Your task to perform on an android device: see creations saved in the google photos Image 0: 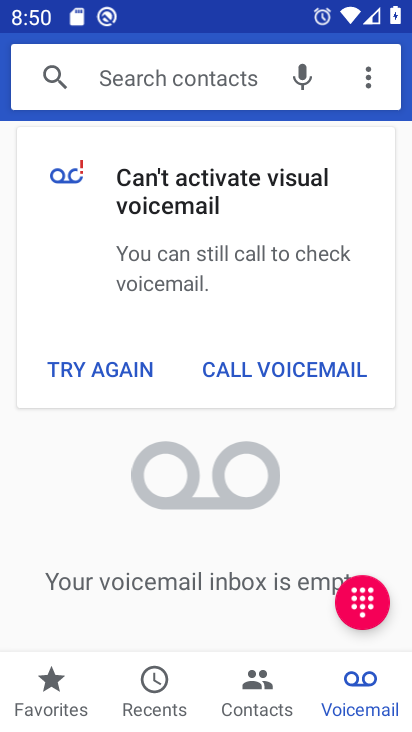
Step 0: press home button
Your task to perform on an android device: see creations saved in the google photos Image 1: 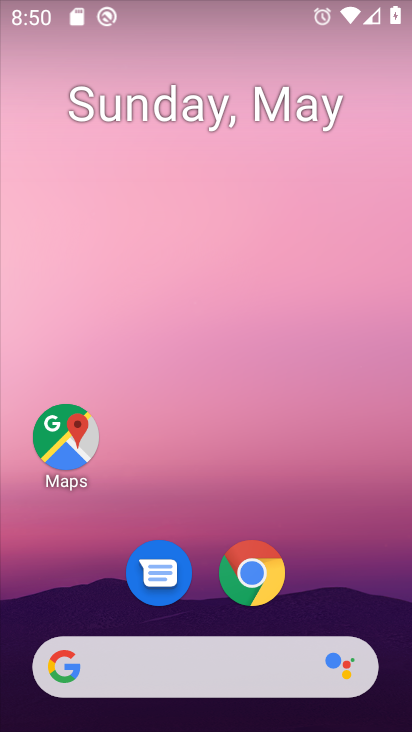
Step 1: drag from (265, 472) to (215, 1)
Your task to perform on an android device: see creations saved in the google photos Image 2: 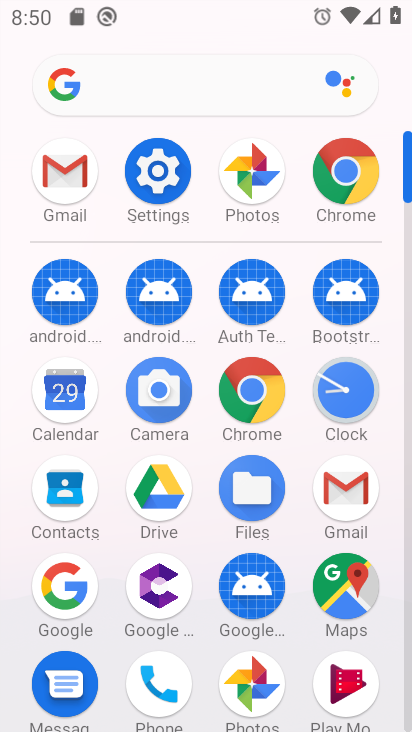
Step 2: click (252, 165)
Your task to perform on an android device: see creations saved in the google photos Image 3: 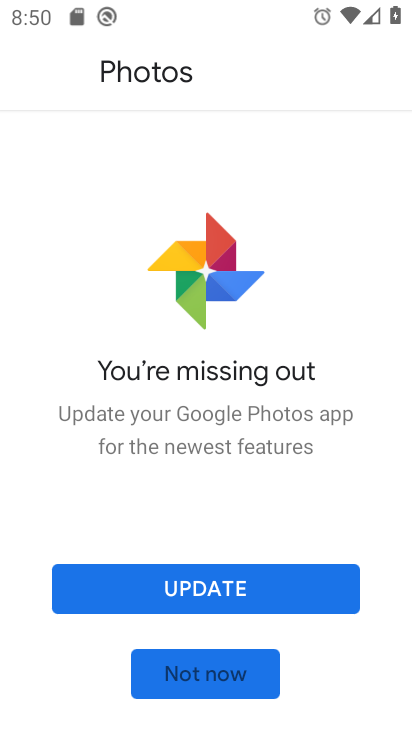
Step 3: click (239, 676)
Your task to perform on an android device: see creations saved in the google photos Image 4: 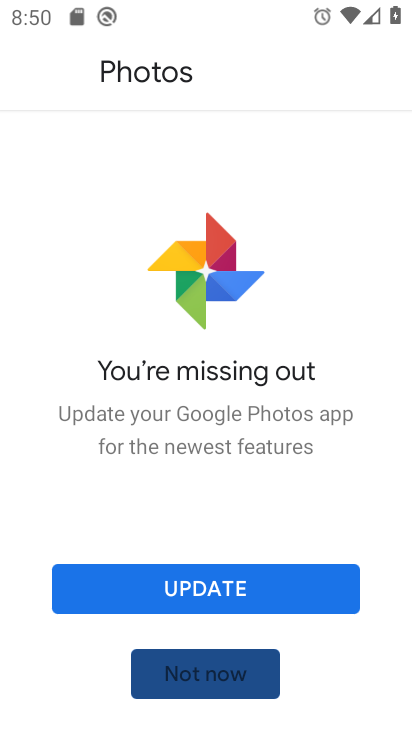
Step 4: click (243, 674)
Your task to perform on an android device: see creations saved in the google photos Image 5: 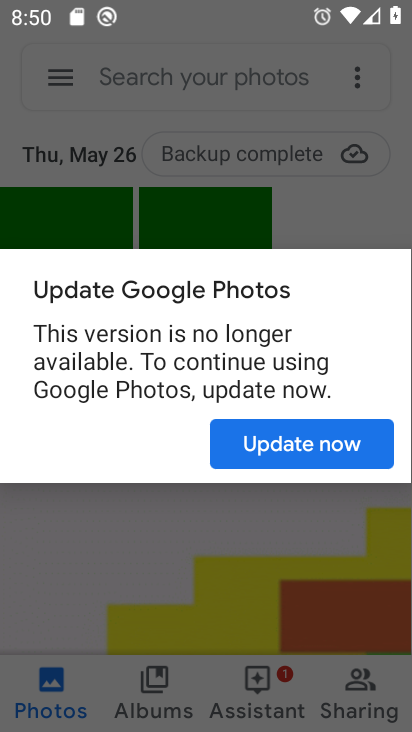
Step 5: click (352, 450)
Your task to perform on an android device: see creations saved in the google photos Image 6: 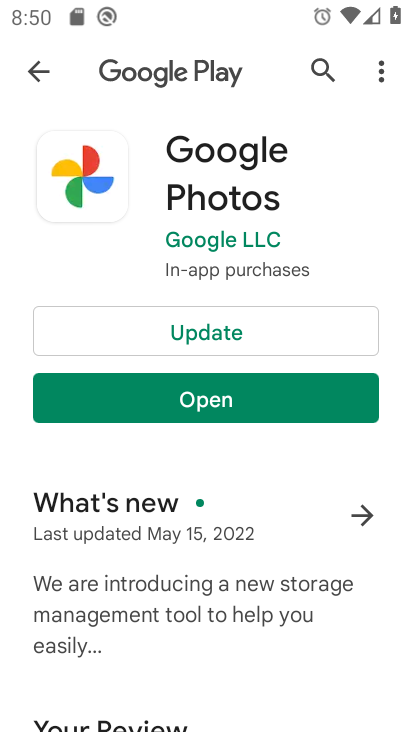
Step 6: click (326, 401)
Your task to perform on an android device: see creations saved in the google photos Image 7: 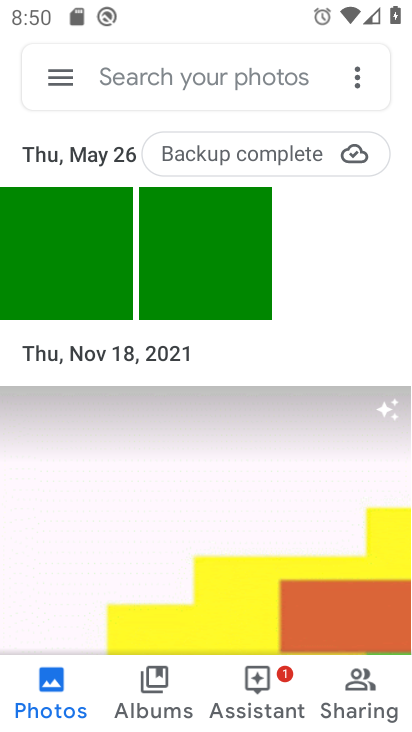
Step 7: click (262, 70)
Your task to perform on an android device: see creations saved in the google photos Image 8: 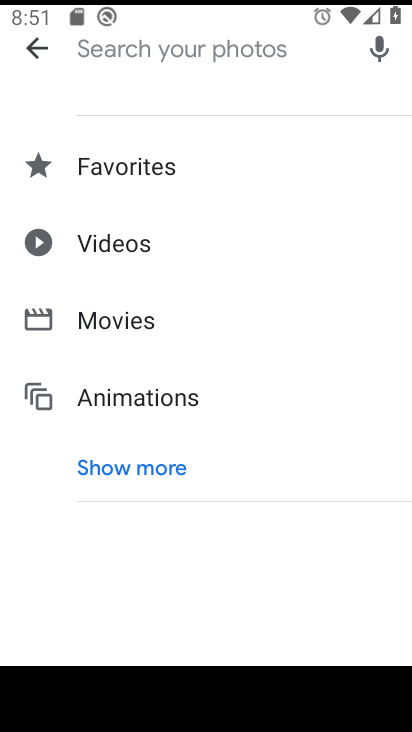
Step 8: click (124, 464)
Your task to perform on an android device: see creations saved in the google photos Image 9: 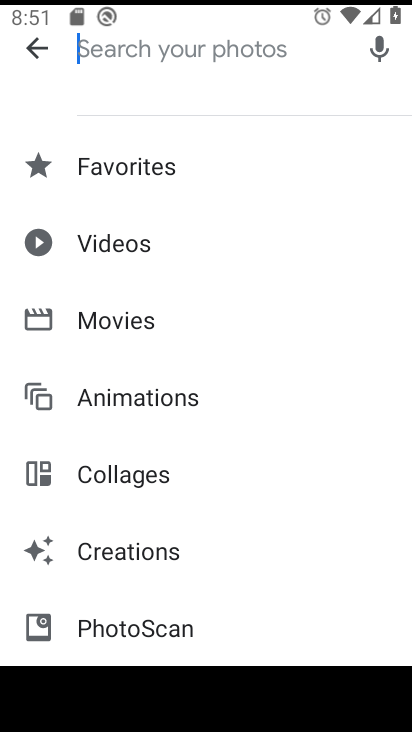
Step 9: click (122, 552)
Your task to perform on an android device: see creations saved in the google photos Image 10: 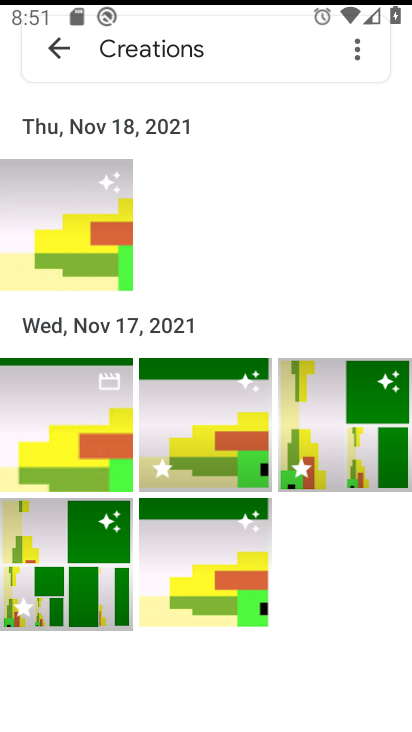
Step 10: task complete